Your task to perform on an android device: see tabs open on other devices in the chrome app Image 0: 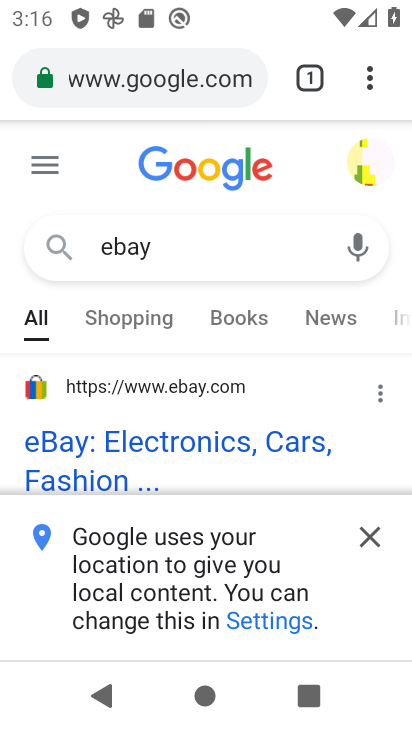
Step 0: press home button
Your task to perform on an android device: see tabs open on other devices in the chrome app Image 1: 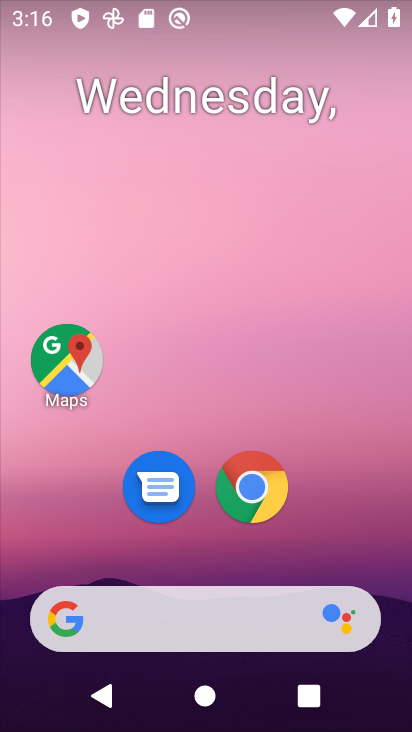
Step 1: drag from (313, 546) to (338, 230)
Your task to perform on an android device: see tabs open on other devices in the chrome app Image 2: 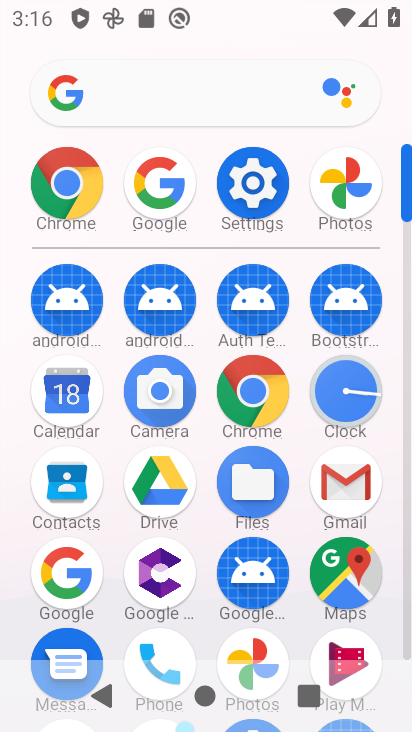
Step 2: click (261, 404)
Your task to perform on an android device: see tabs open on other devices in the chrome app Image 3: 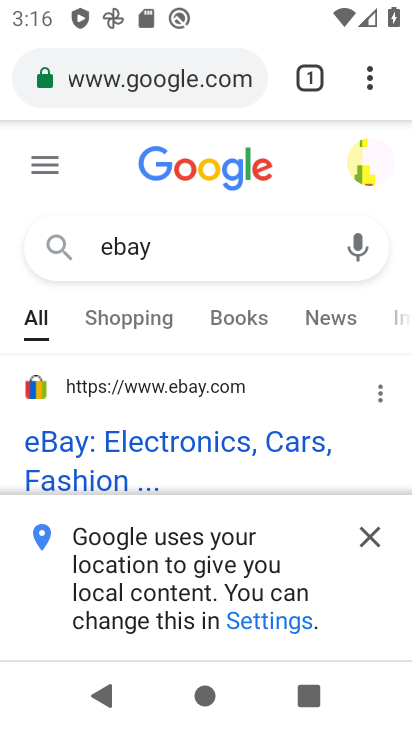
Step 3: click (372, 86)
Your task to perform on an android device: see tabs open on other devices in the chrome app Image 4: 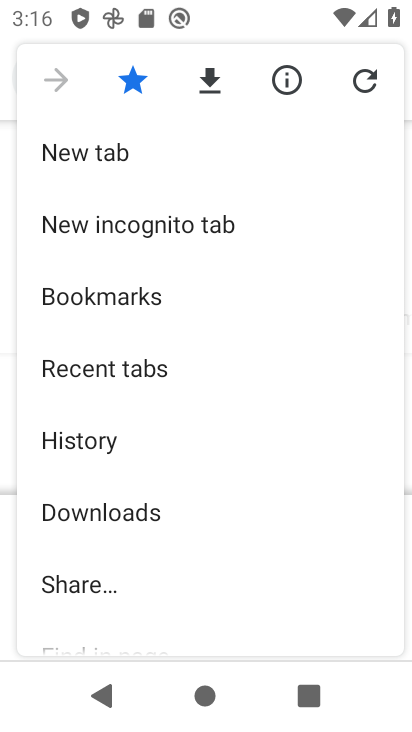
Step 4: drag from (255, 463) to (269, 386)
Your task to perform on an android device: see tabs open on other devices in the chrome app Image 5: 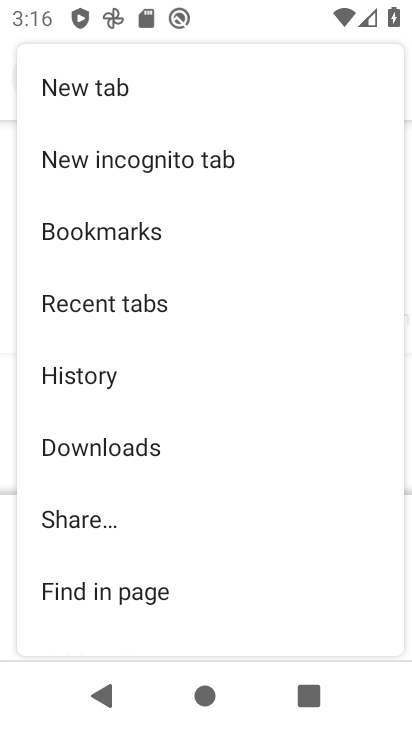
Step 5: drag from (291, 530) to (292, 452)
Your task to perform on an android device: see tabs open on other devices in the chrome app Image 6: 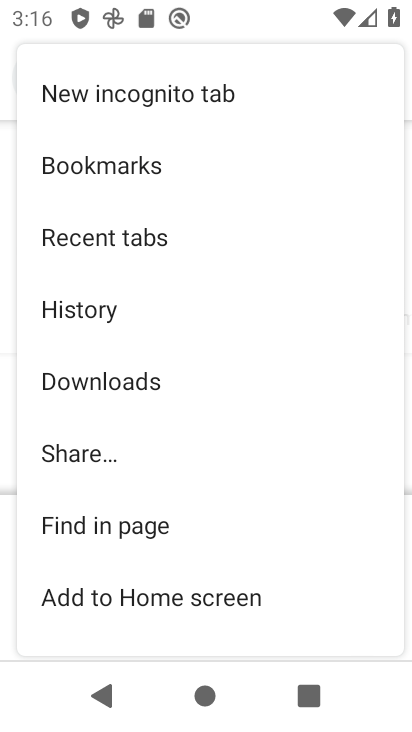
Step 6: drag from (288, 548) to (295, 447)
Your task to perform on an android device: see tabs open on other devices in the chrome app Image 7: 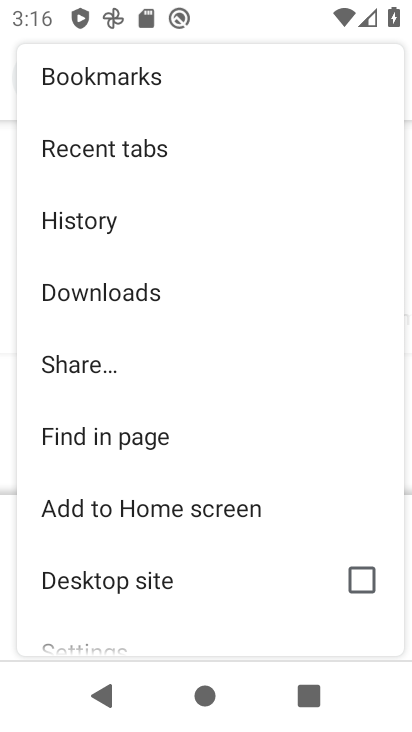
Step 7: drag from (286, 574) to (289, 476)
Your task to perform on an android device: see tabs open on other devices in the chrome app Image 8: 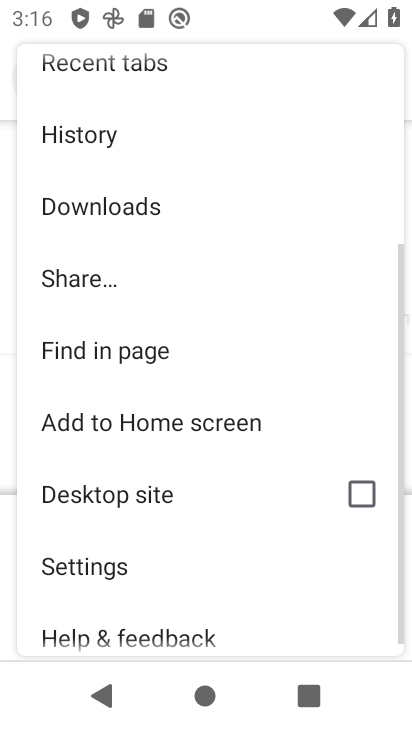
Step 8: drag from (290, 563) to (287, 419)
Your task to perform on an android device: see tabs open on other devices in the chrome app Image 9: 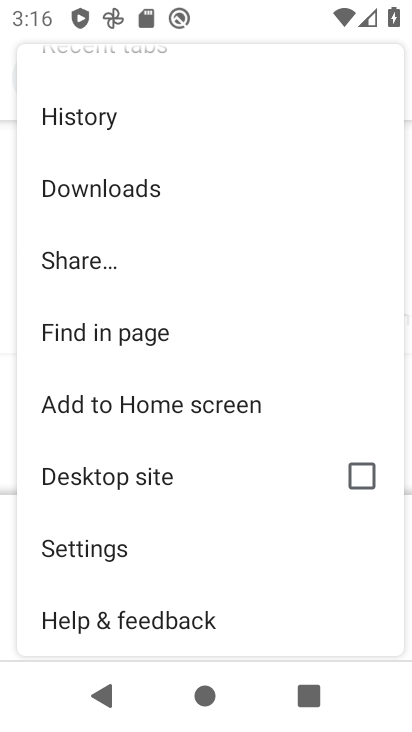
Step 9: drag from (287, 314) to (287, 436)
Your task to perform on an android device: see tabs open on other devices in the chrome app Image 10: 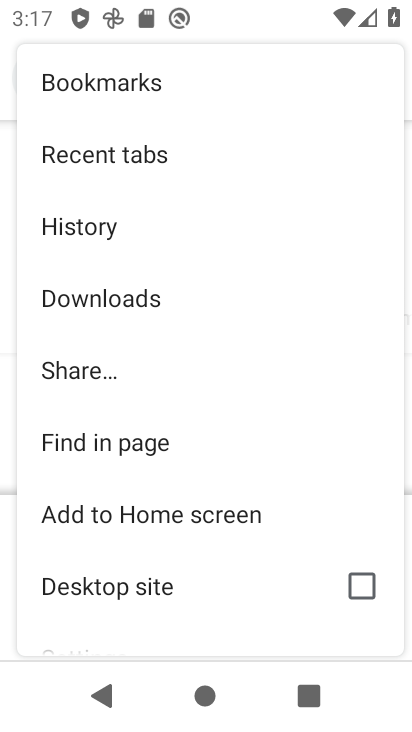
Step 10: drag from (287, 315) to (282, 414)
Your task to perform on an android device: see tabs open on other devices in the chrome app Image 11: 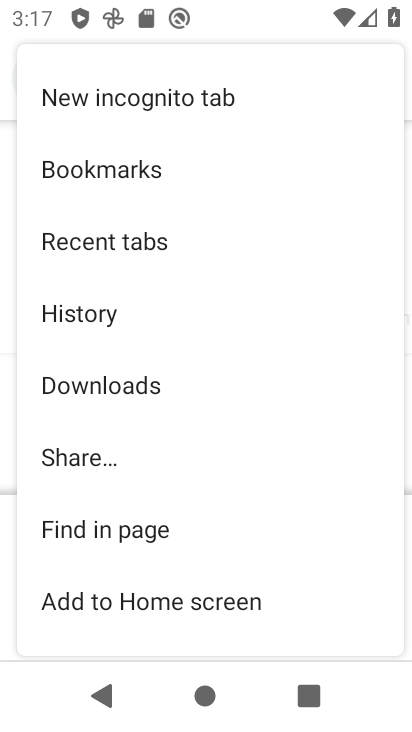
Step 11: drag from (282, 297) to (277, 391)
Your task to perform on an android device: see tabs open on other devices in the chrome app Image 12: 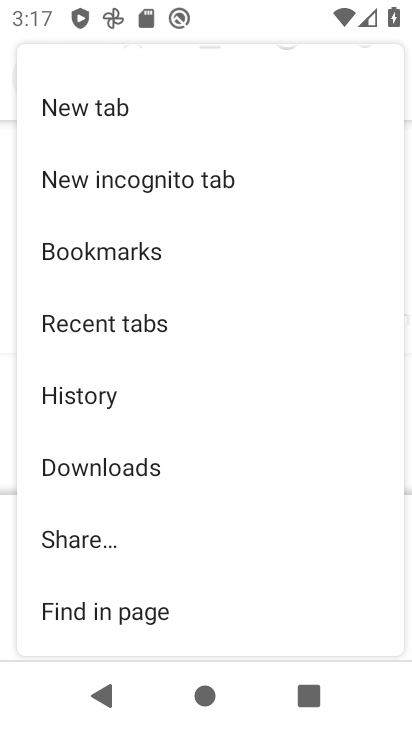
Step 12: drag from (276, 293) to (265, 376)
Your task to perform on an android device: see tabs open on other devices in the chrome app Image 13: 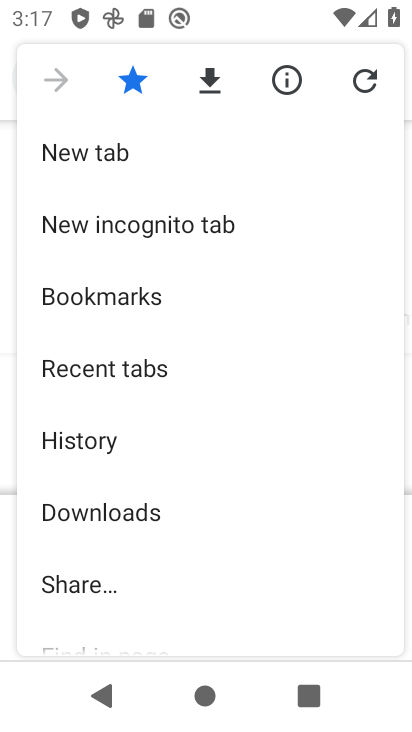
Step 13: click (160, 362)
Your task to perform on an android device: see tabs open on other devices in the chrome app Image 14: 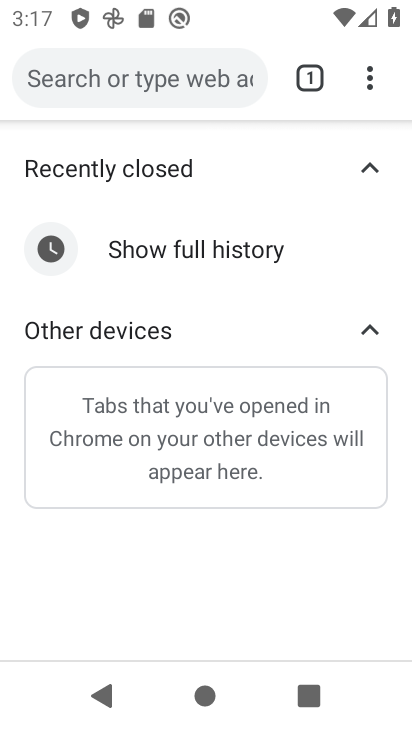
Step 14: click (303, 92)
Your task to perform on an android device: see tabs open on other devices in the chrome app Image 15: 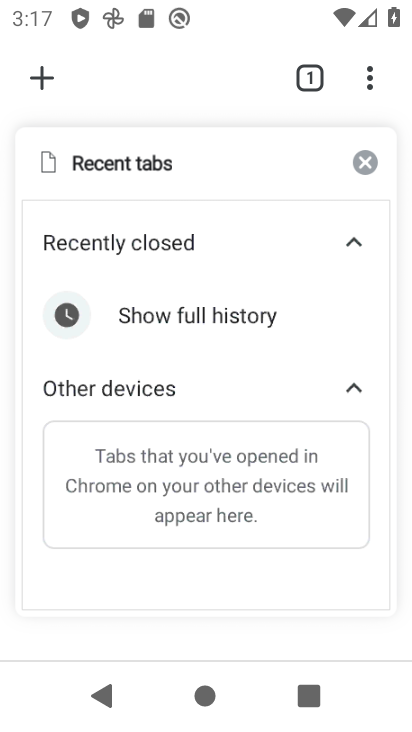
Step 15: task complete